Your task to perform on an android device: read, delete, or share a saved page in the chrome app Image 0: 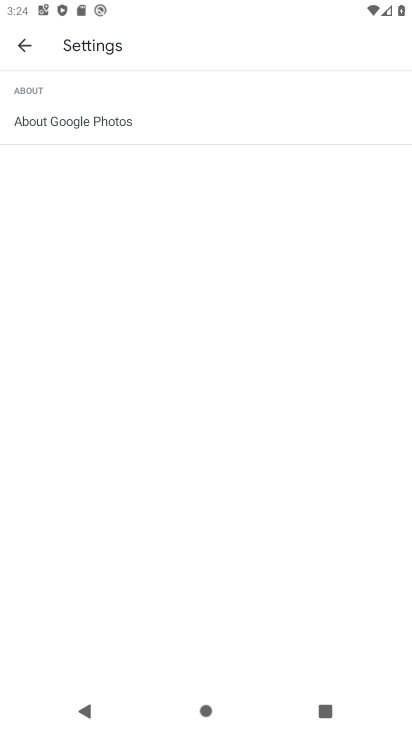
Step 0: click (23, 45)
Your task to perform on an android device: read, delete, or share a saved page in the chrome app Image 1: 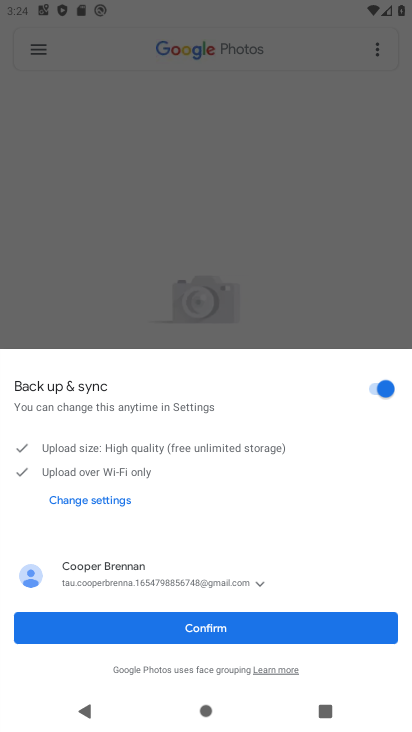
Step 1: click (229, 627)
Your task to perform on an android device: read, delete, or share a saved page in the chrome app Image 2: 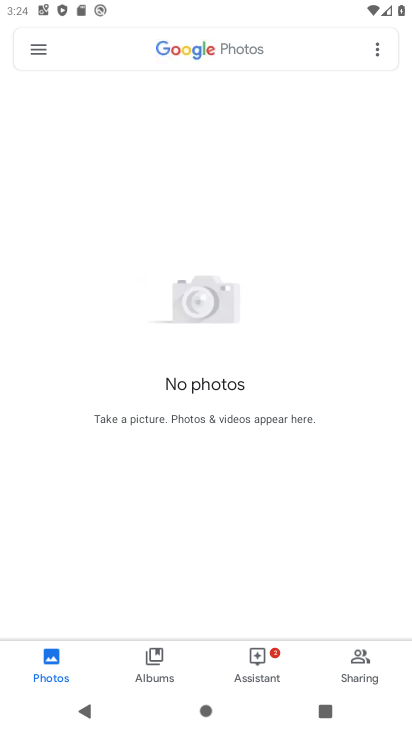
Step 2: click (321, 233)
Your task to perform on an android device: read, delete, or share a saved page in the chrome app Image 3: 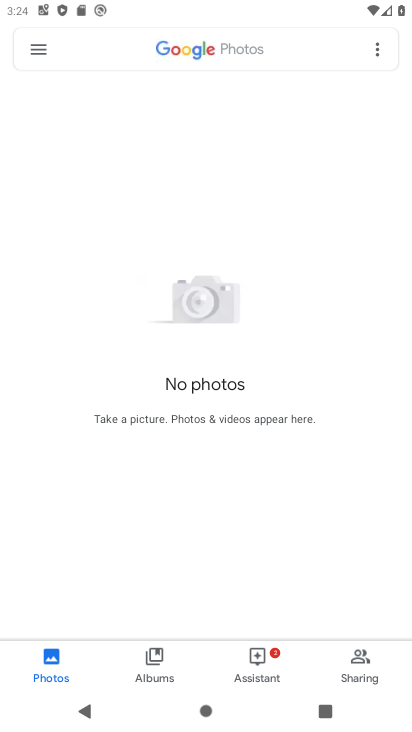
Step 3: press back button
Your task to perform on an android device: read, delete, or share a saved page in the chrome app Image 4: 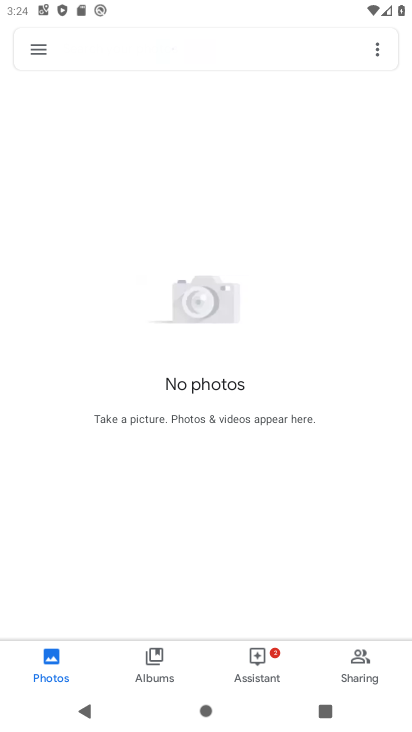
Step 4: press back button
Your task to perform on an android device: read, delete, or share a saved page in the chrome app Image 5: 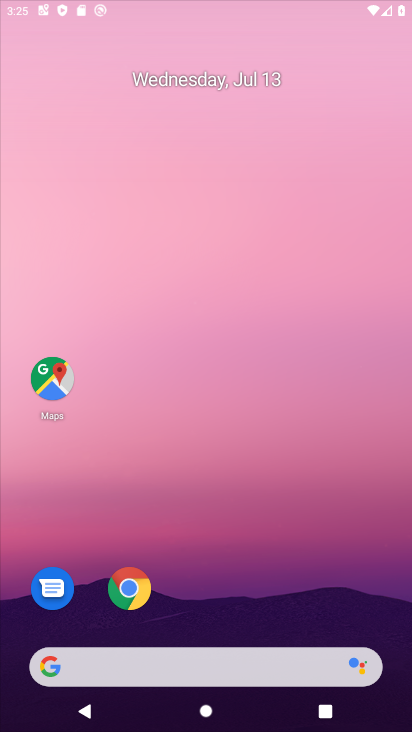
Step 5: press back button
Your task to perform on an android device: read, delete, or share a saved page in the chrome app Image 6: 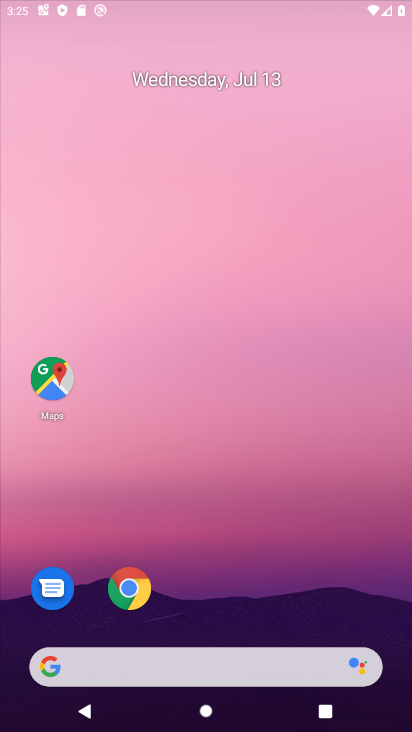
Step 6: press home button
Your task to perform on an android device: read, delete, or share a saved page in the chrome app Image 7: 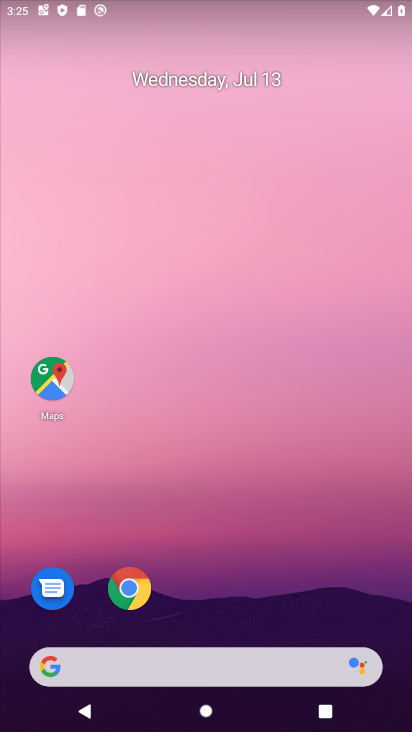
Step 7: press home button
Your task to perform on an android device: read, delete, or share a saved page in the chrome app Image 8: 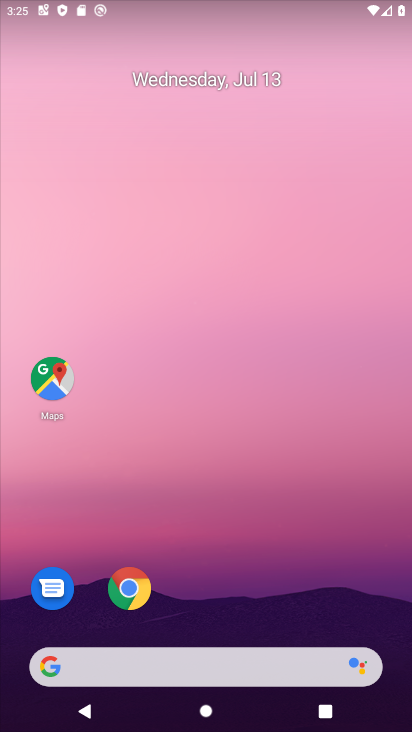
Step 8: drag from (244, 667) to (152, 122)
Your task to perform on an android device: read, delete, or share a saved page in the chrome app Image 9: 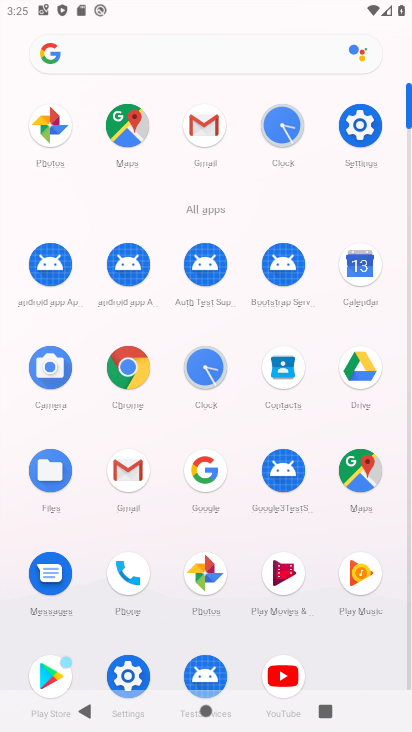
Step 9: click (128, 363)
Your task to perform on an android device: read, delete, or share a saved page in the chrome app Image 10: 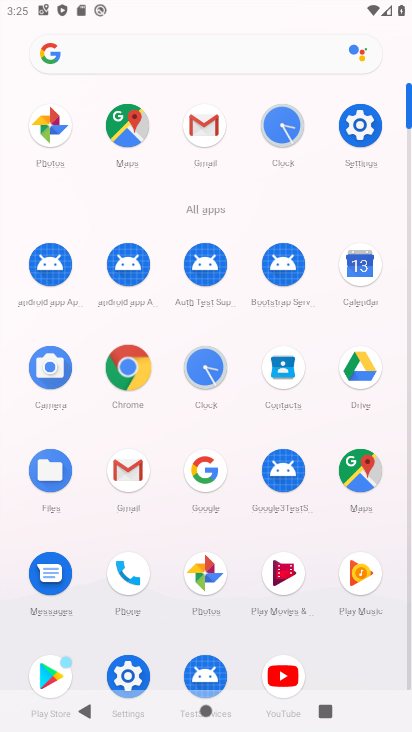
Step 10: click (131, 361)
Your task to perform on an android device: read, delete, or share a saved page in the chrome app Image 11: 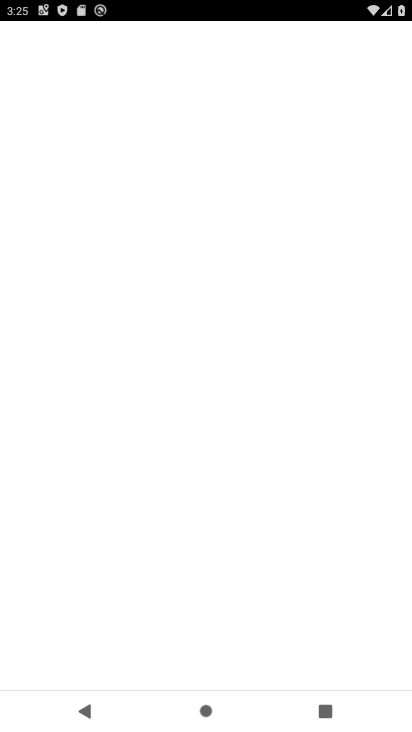
Step 11: click (136, 365)
Your task to perform on an android device: read, delete, or share a saved page in the chrome app Image 12: 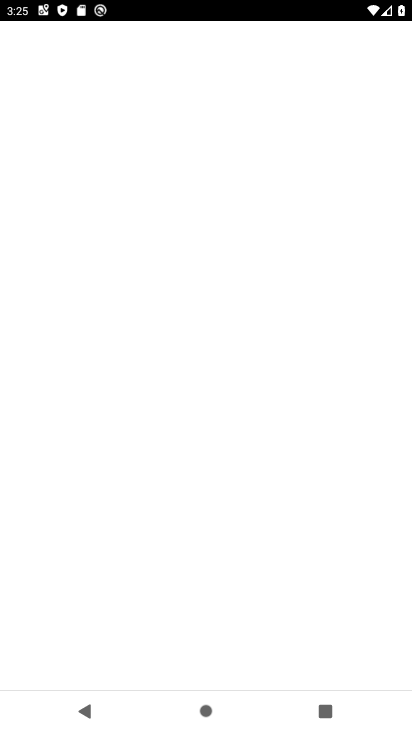
Step 12: click (141, 370)
Your task to perform on an android device: read, delete, or share a saved page in the chrome app Image 13: 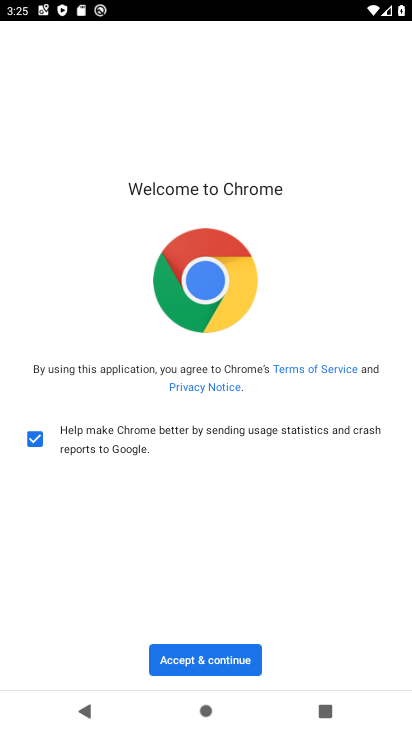
Step 13: click (188, 664)
Your task to perform on an android device: read, delete, or share a saved page in the chrome app Image 14: 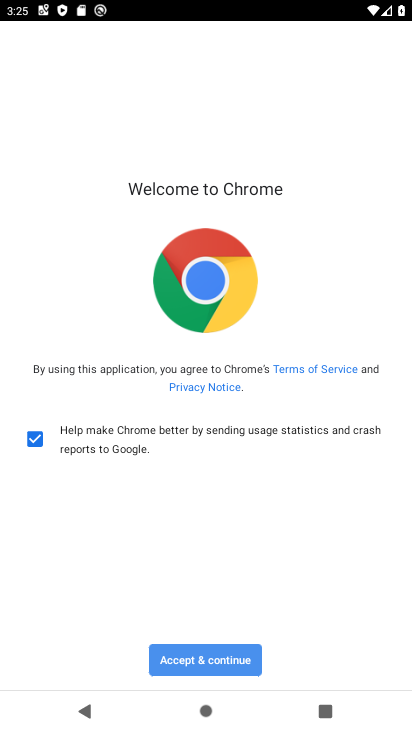
Step 14: click (198, 661)
Your task to perform on an android device: read, delete, or share a saved page in the chrome app Image 15: 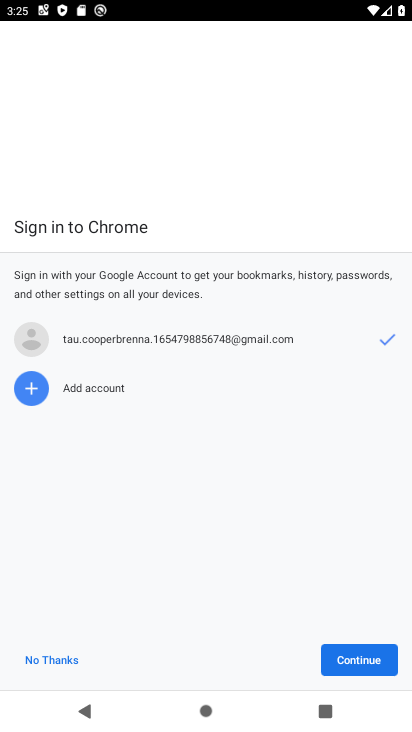
Step 15: click (199, 661)
Your task to perform on an android device: read, delete, or share a saved page in the chrome app Image 16: 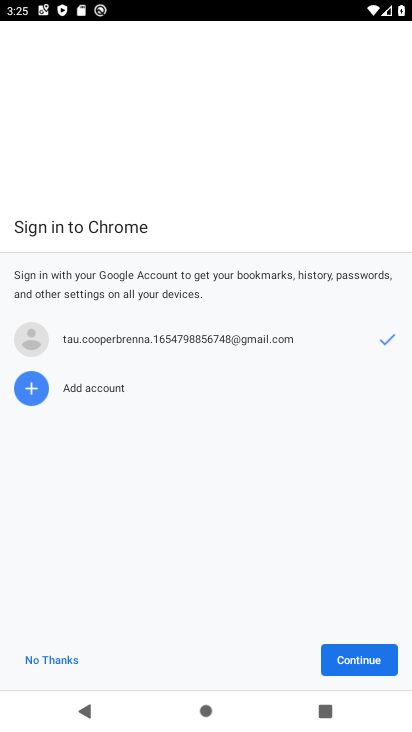
Step 16: click (340, 661)
Your task to perform on an android device: read, delete, or share a saved page in the chrome app Image 17: 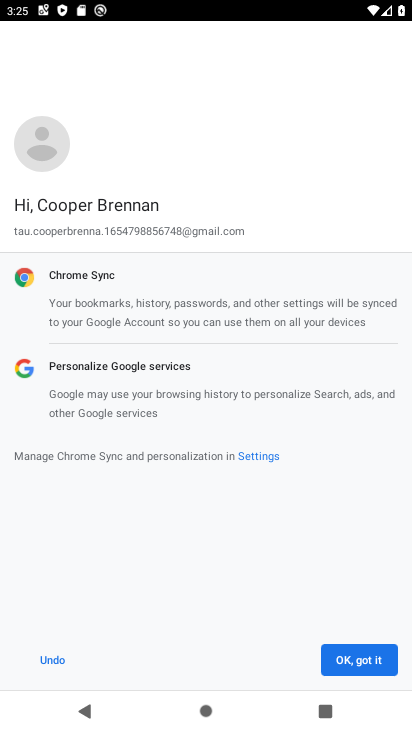
Step 17: click (356, 660)
Your task to perform on an android device: read, delete, or share a saved page in the chrome app Image 18: 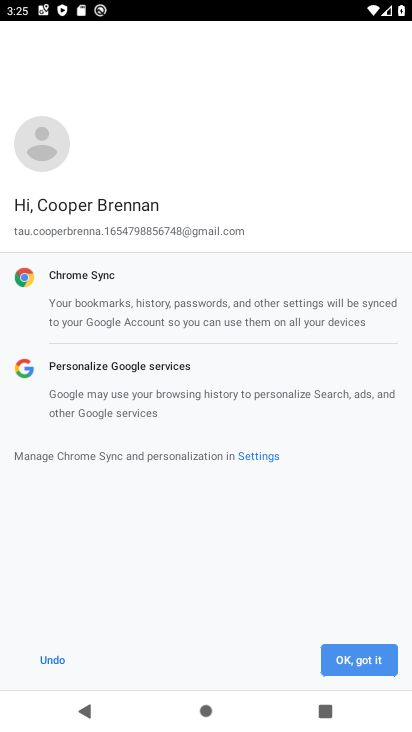
Step 18: click (357, 660)
Your task to perform on an android device: read, delete, or share a saved page in the chrome app Image 19: 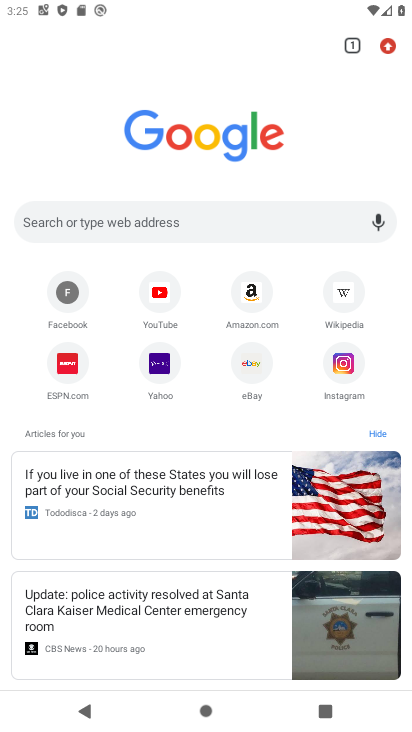
Step 19: drag from (382, 42) to (281, 729)
Your task to perform on an android device: read, delete, or share a saved page in the chrome app Image 20: 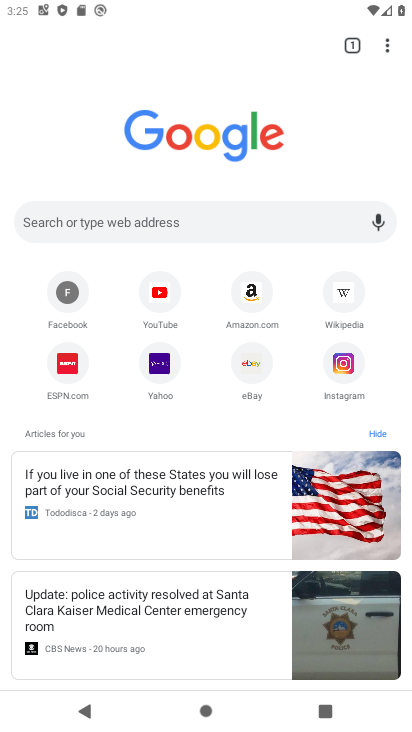
Step 20: click (382, 38)
Your task to perform on an android device: read, delete, or share a saved page in the chrome app Image 21: 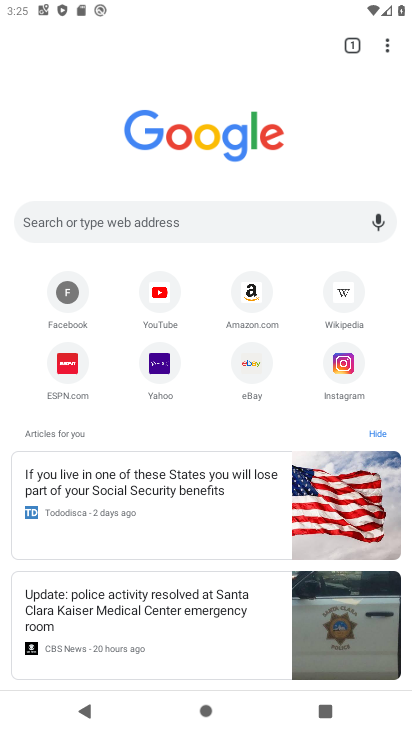
Step 21: click (382, 38)
Your task to perform on an android device: read, delete, or share a saved page in the chrome app Image 22: 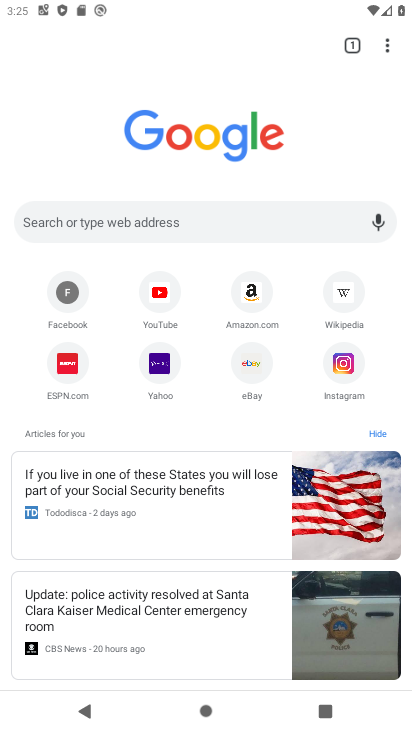
Step 22: drag from (379, 46) to (207, 422)
Your task to perform on an android device: read, delete, or share a saved page in the chrome app Image 23: 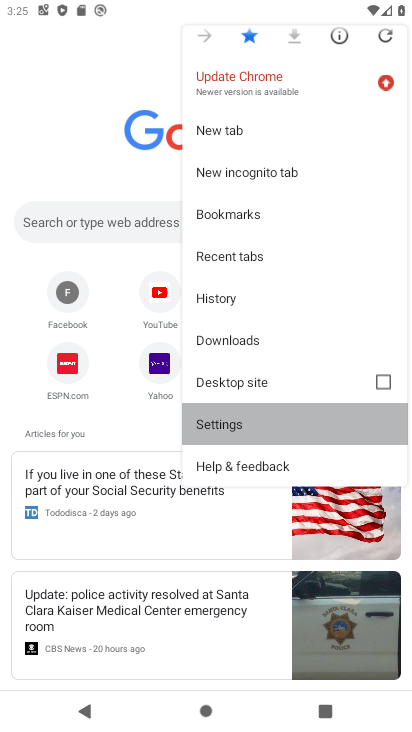
Step 23: click (207, 422)
Your task to perform on an android device: read, delete, or share a saved page in the chrome app Image 24: 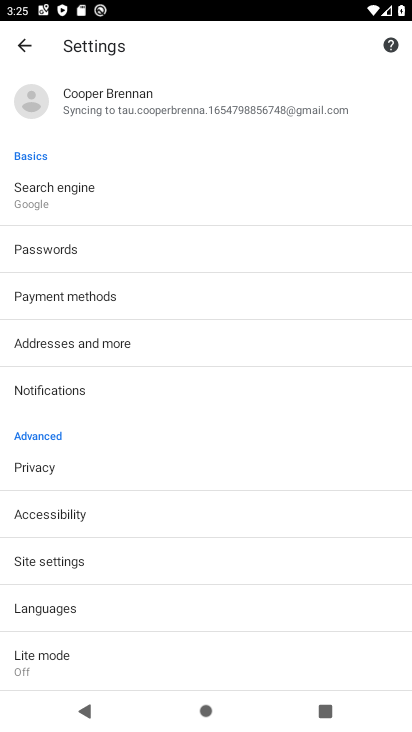
Step 24: click (21, 41)
Your task to perform on an android device: read, delete, or share a saved page in the chrome app Image 25: 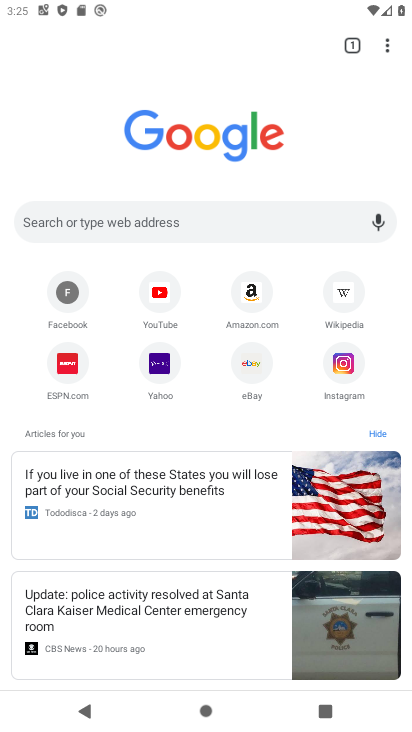
Step 25: drag from (390, 43) to (232, 347)
Your task to perform on an android device: read, delete, or share a saved page in the chrome app Image 26: 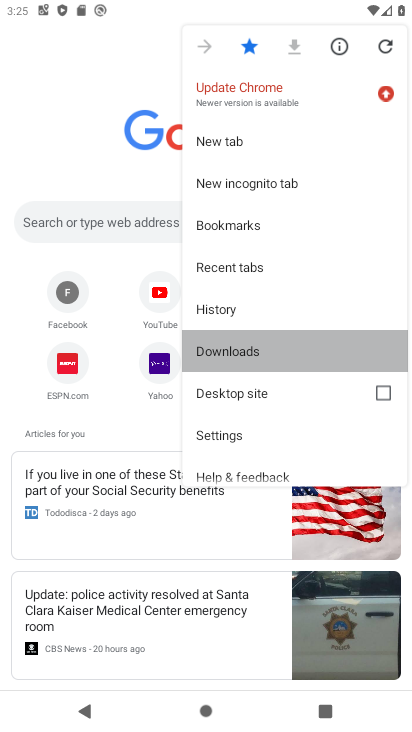
Step 26: click (240, 343)
Your task to perform on an android device: read, delete, or share a saved page in the chrome app Image 27: 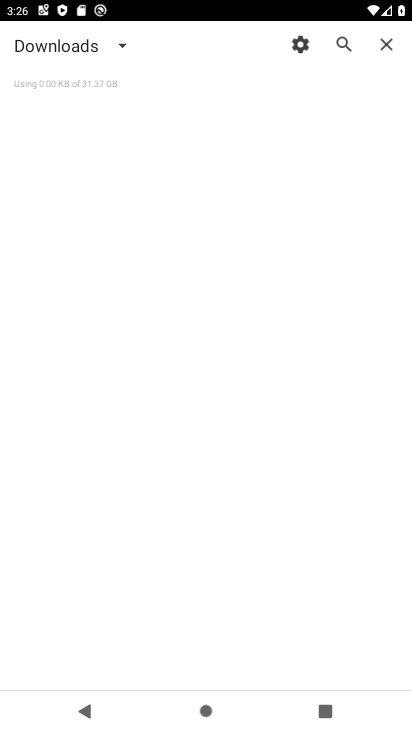
Step 27: click (124, 32)
Your task to perform on an android device: read, delete, or share a saved page in the chrome app Image 28: 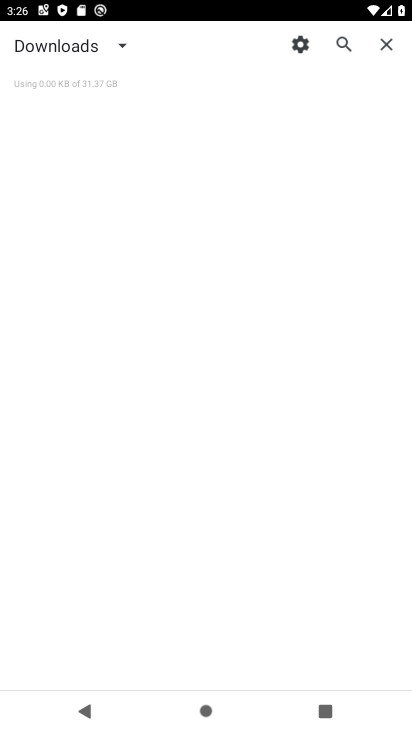
Step 28: click (120, 35)
Your task to perform on an android device: read, delete, or share a saved page in the chrome app Image 29: 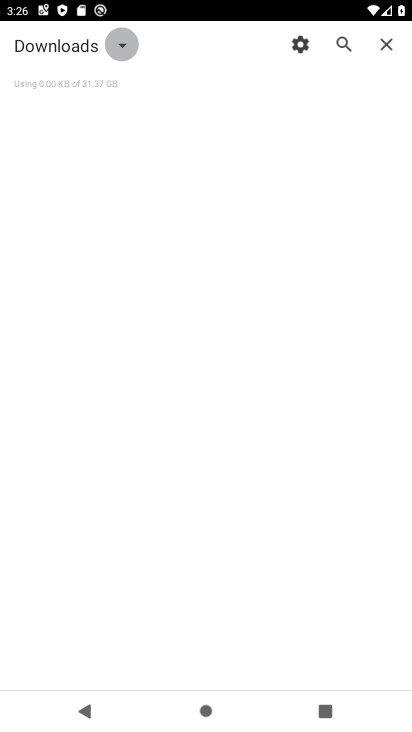
Step 29: click (121, 36)
Your task to perform on an android device: read, delete, or share a saved page in the chrome app Image 30: 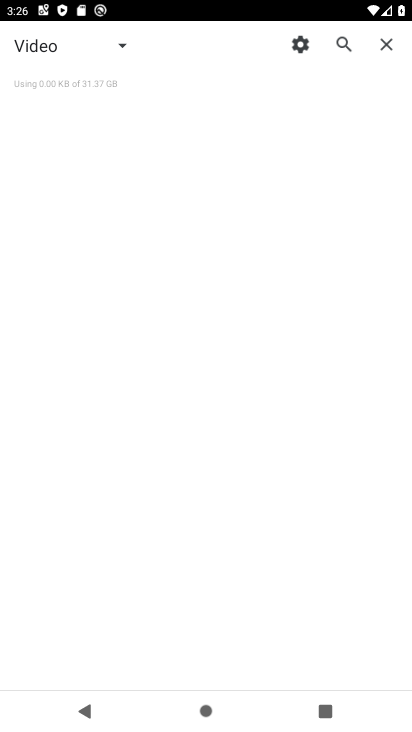
Step 30: task complete